Your task to perform on an android device: Open settings Image 0: 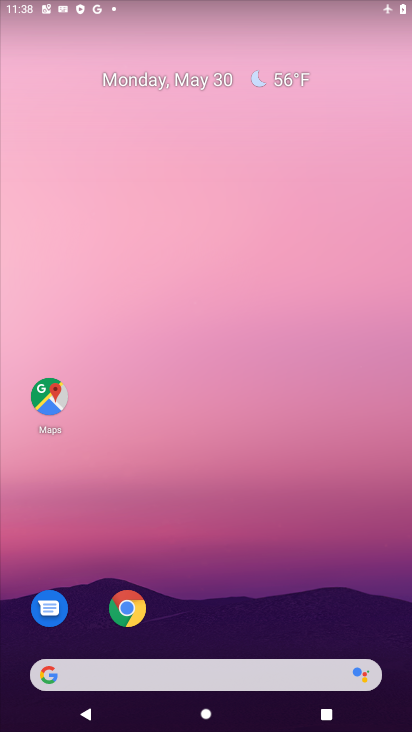
Step 0: drag from (217, 482) to (244, 57)
Your task to perform on an android device: Open settings Image 1: 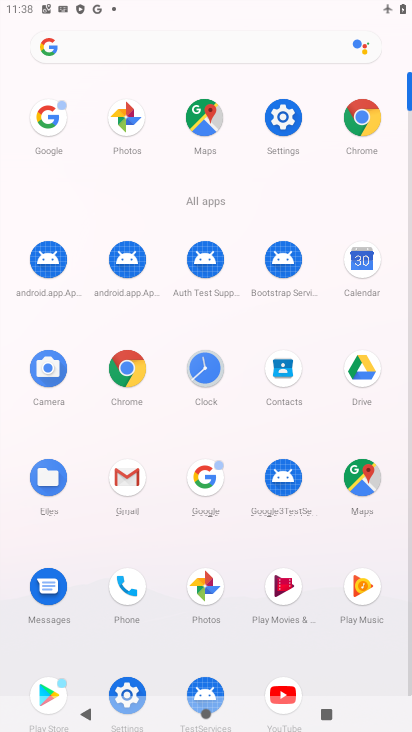
Step 1: click (284, 118)
Your task to perform on an android device: Open settings Image 2: 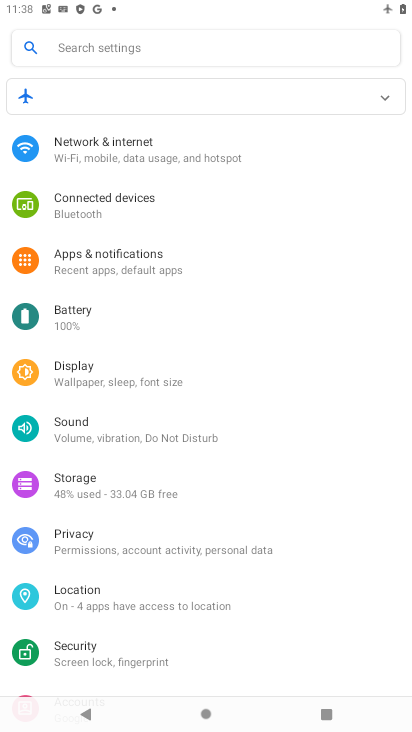
Step 2: task complete